Your task to perform on an android device: find photos in the google photos app Image 0: 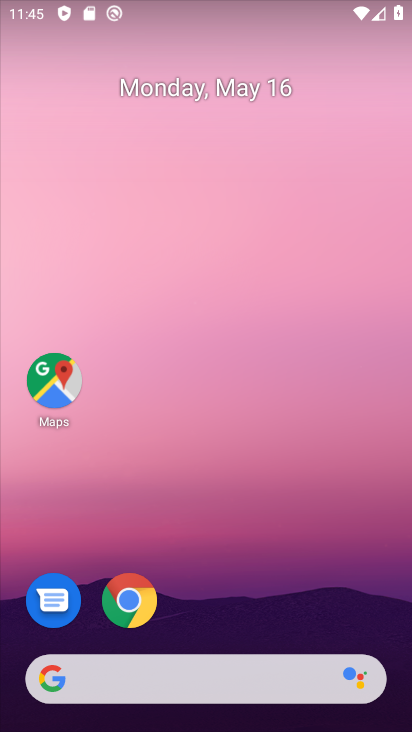
Step 0: drag from (278, 554) to (278, 62)
Your task to perform on an android device: find photos in the google photos app Image 1: 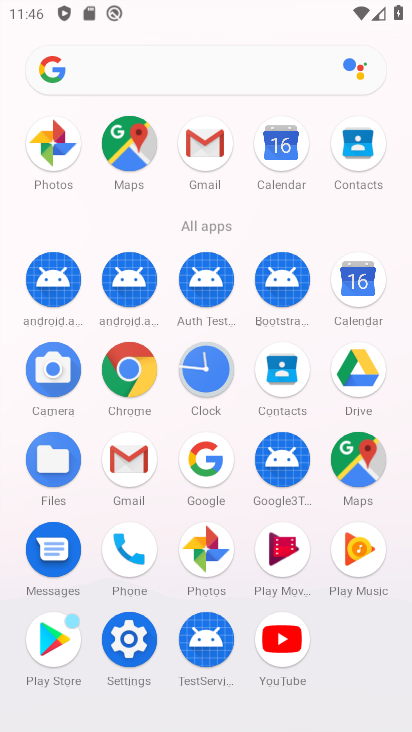
Step 1: click (216, 551)
Your task to perform on an android device: find photos in the google photos app Image 2: 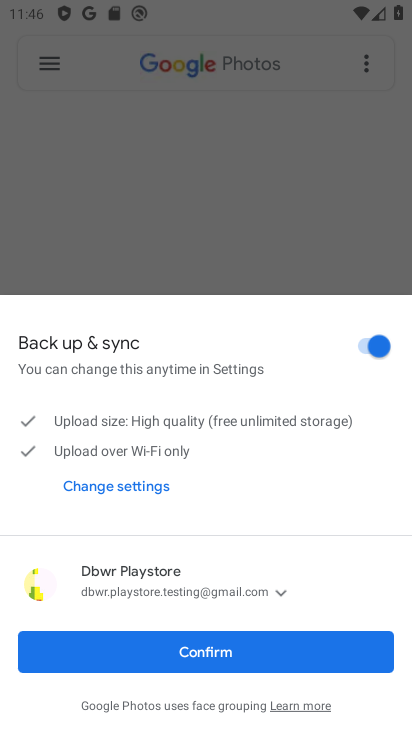
Step 2: click (218, 641)
Your task to perform on an android device: find photos in the google photos app Image 3: 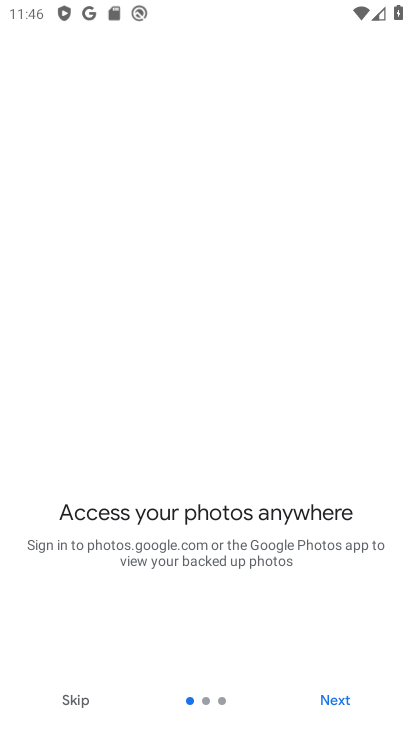
Step 3: click (340, 686)
Your task to perform on an android device: find photos in the google photos app Image 4: 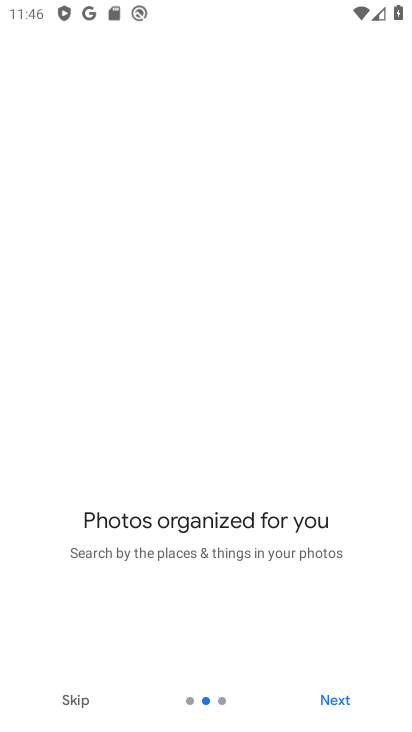
Step 4: click (340, 684)
Your task to perform on an android device: find photos in the google photos app Image 5: 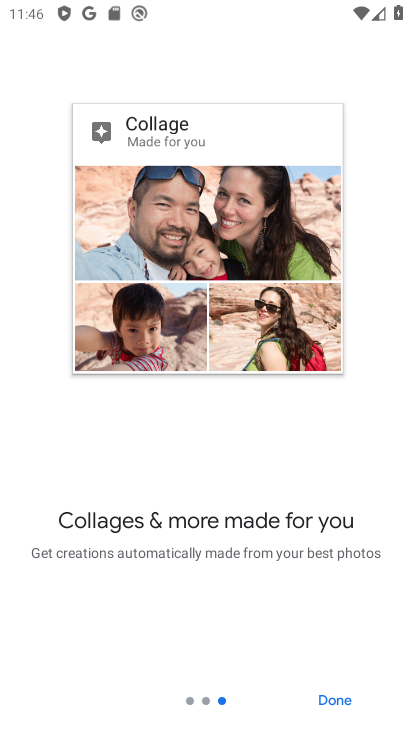
Step 5: click (340, 684)
Your task to perform on an android device: find photos in the google photos app Image 6: 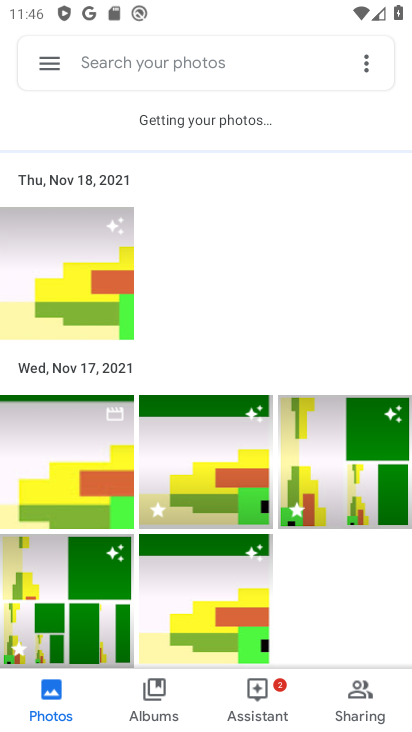
Step 6: task complete